Your task to perform on an android device: Go to Google Image 0: 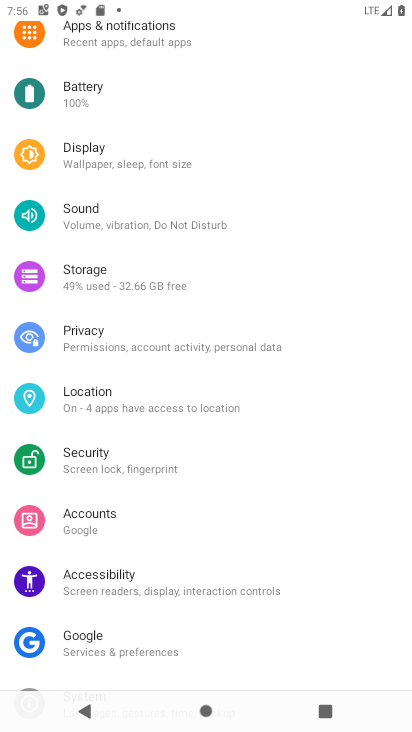
Step 0: press home button
Your task to perform on an android device: Go to Google Image 1: 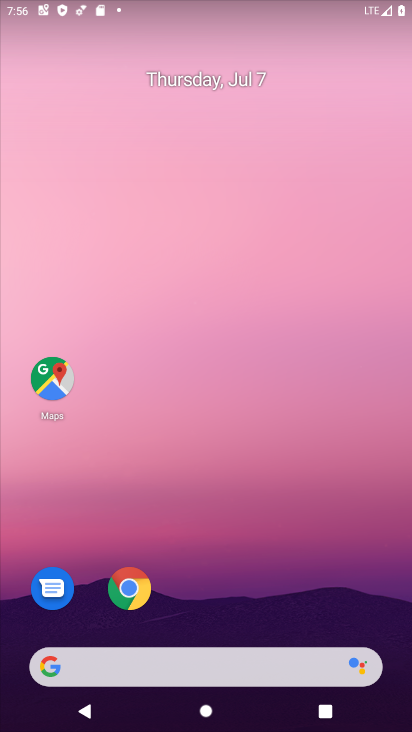
Step 1: drag from (312, 591) to (280, 152)
Your task to perform on an android device: Go to Google Image 2: 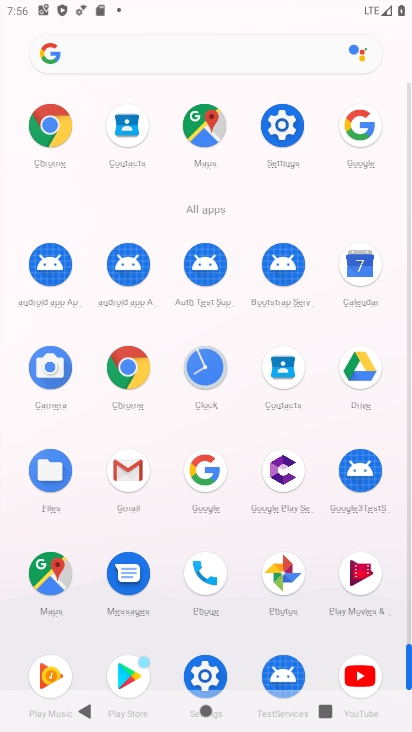
Step 2: click (367, 116)
Your task to perform on an android device: Go to Google Image 3: 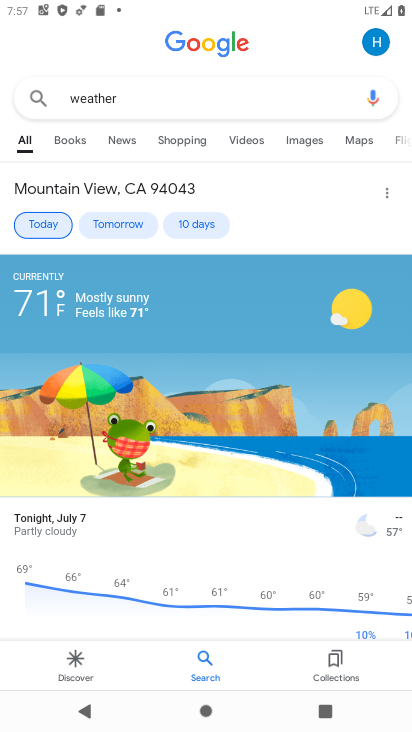
Step 3: task complete